Your task to perform on an android device: toggle notifications settings in the gmail app Image 0: 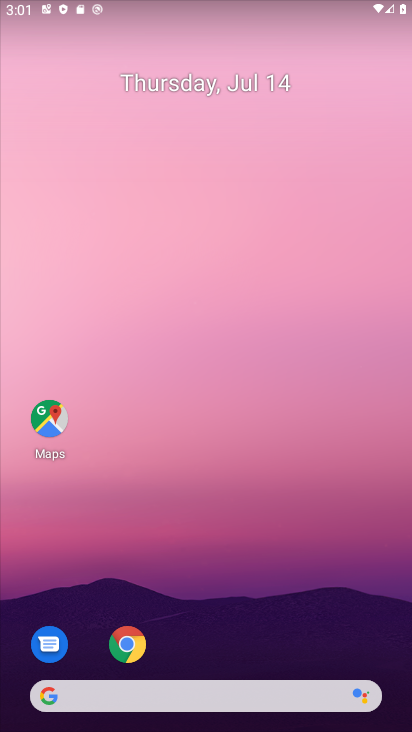
Step 0: drag from (208, 600) to (264, 199)
Your task to perform on an android device: toggle notifications settings in the gmail app Image 1: 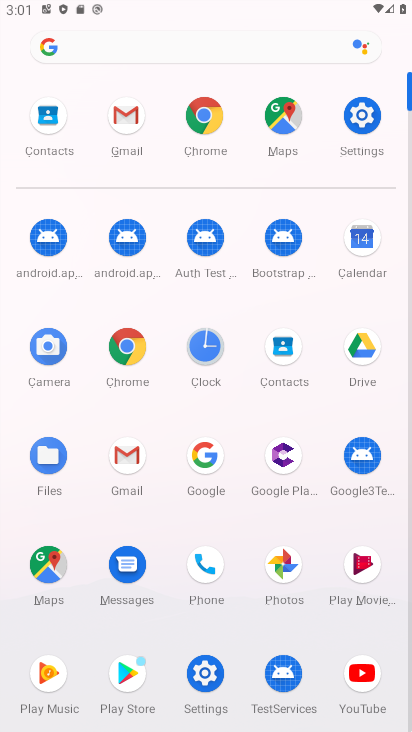
Step 1: click (115, 128)
Your task to perform on an android device: toggle notifications settings in the gmail app Image 2: 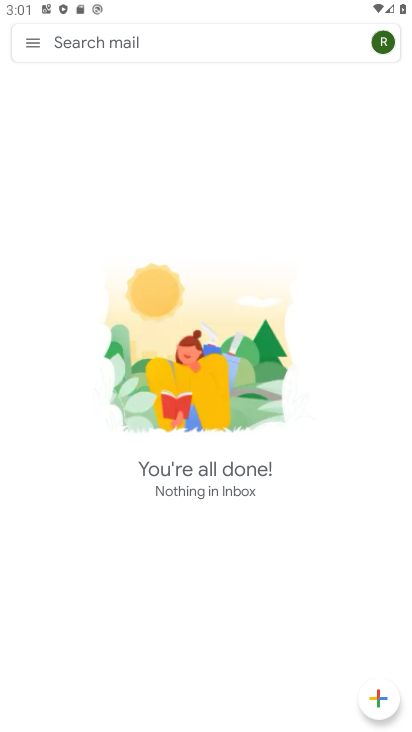
Step 2: drag from (177, 534) to (263, 4)
Your task to perform on an android device: toggle notifications settings in the gmail app Image 3: 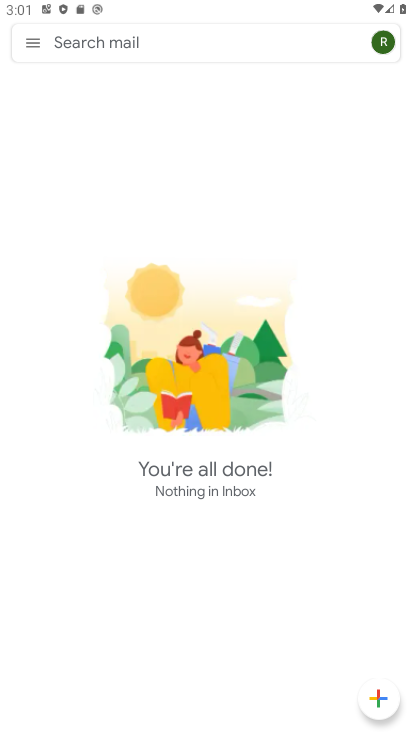
Step 3: drag from (174, 589) to (221, 302)
Your task to perform on an android device: toggle notifications settings in the gmail app Image 4: 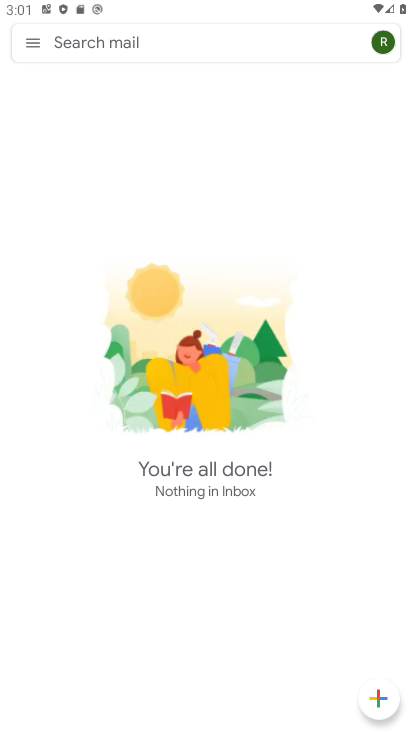
Step 4: drag from (117, 591) to (148, 490)
Your task to perform on an android device: toggle notifications settings in the gmail app Image 5: 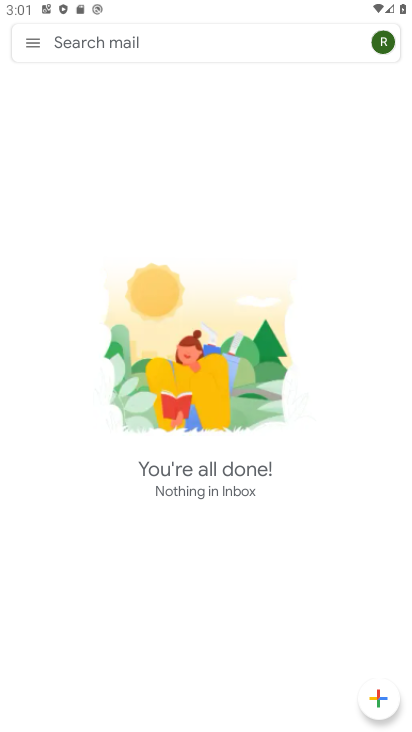
Step 5: click (31, 41)
Your task to perform on an android device: toggle notifications settings in the gmail app Image 6: 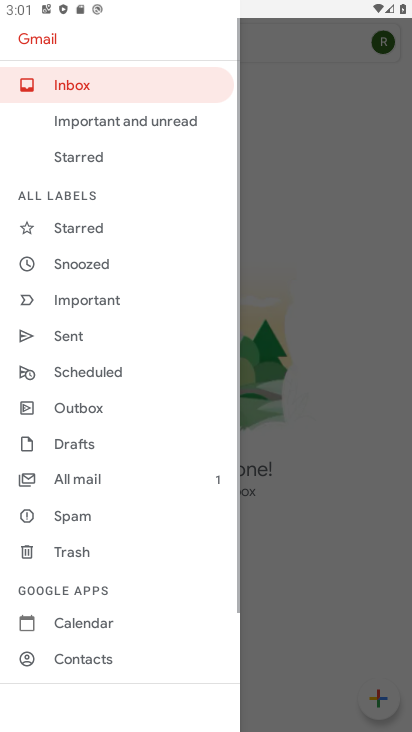
Step 6: drag from (102, 633) to (202, 190)
Your task to perform on an android device: toggle notifications settings in the gmail app Image 7: 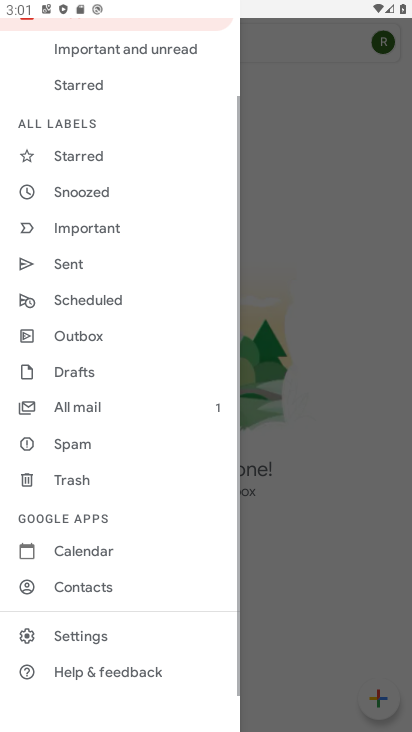
Step 7: click (68, 630)
Your task to perform on an android device: toggle notifications settings in the gmail app Image 8: 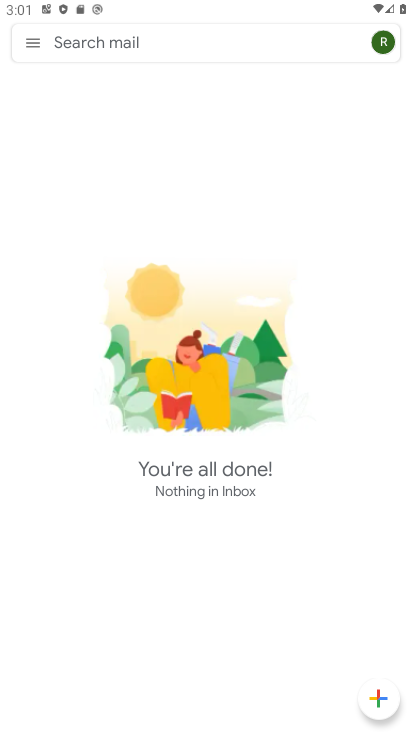
Step 8: drag from (113, 397) to (146, 165)
Your task to perform on an android device: toggle notifications settings in the gmail app Image 9: 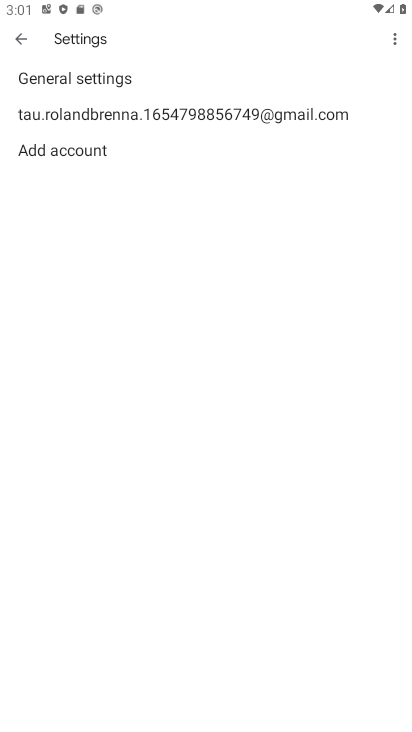
Step 9: click (76, 120)
Your task to perform on an android device: toggle notifications settings in the gmail app Image 10: 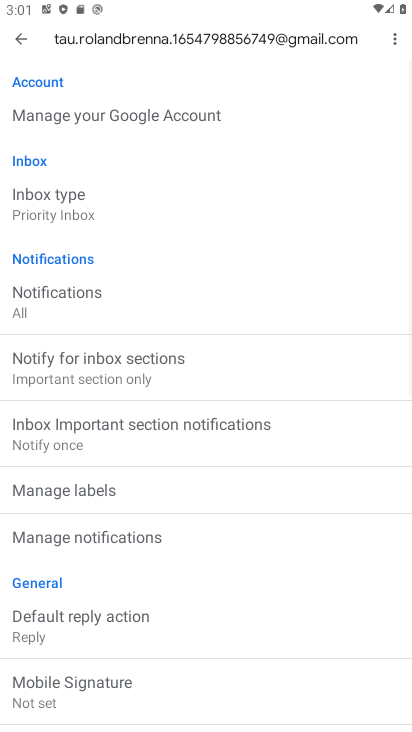
Step 10: click (112, 536)
Your task to perform on an android device: toggle notifications settings in the gmail app Image 11: 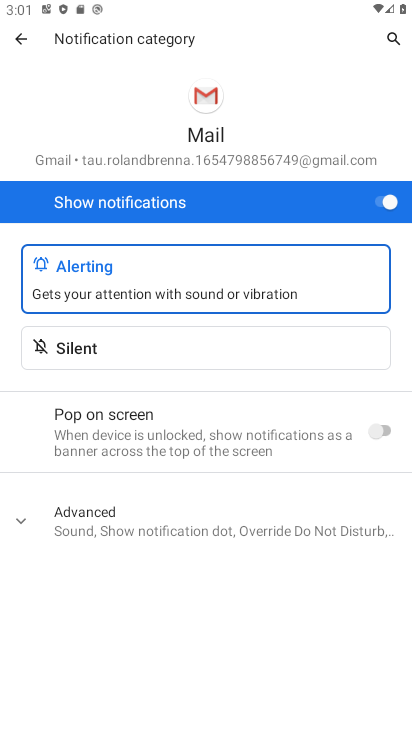
Step 11: click (392, 206)
Your task to perform on an android device: toggle notifications settings in the gmail app Image 12: 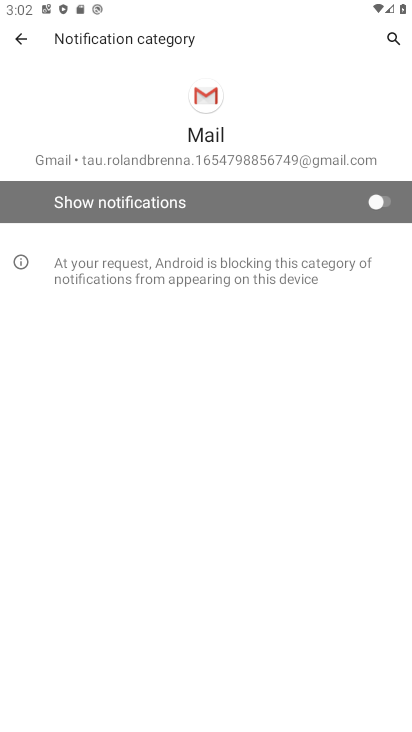
Step 12: task complete